Your task to perform on an android device: toggle sleep mode Image 0: 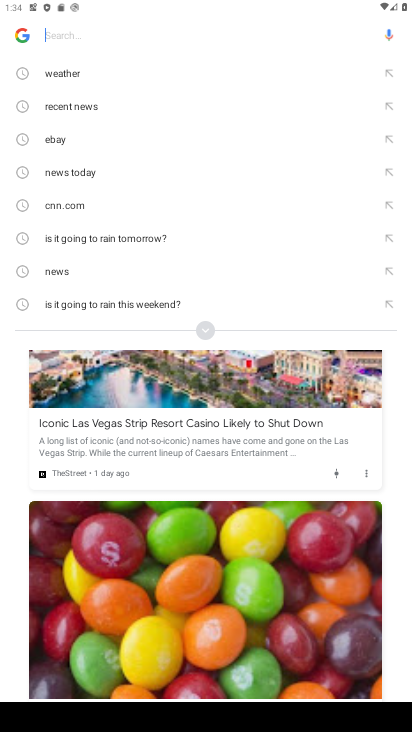
Step 0: press home button
Your task to perform on an android device: toggle sleep mode Image 1: 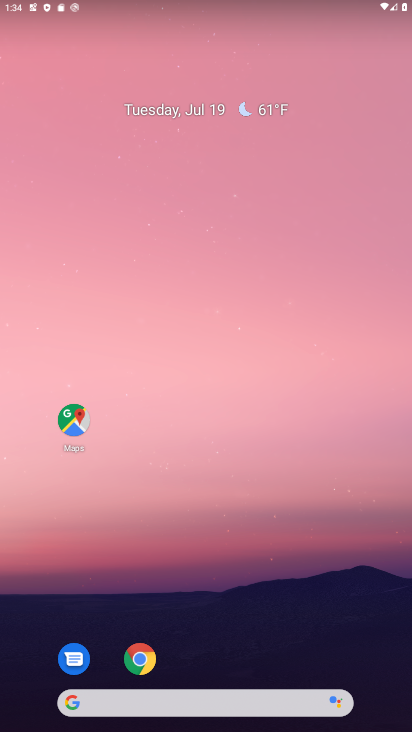
Step 1: drag from (300, 646) to (208, 6)
Your task to perform on an android device: toggle sleep mode Image 2: 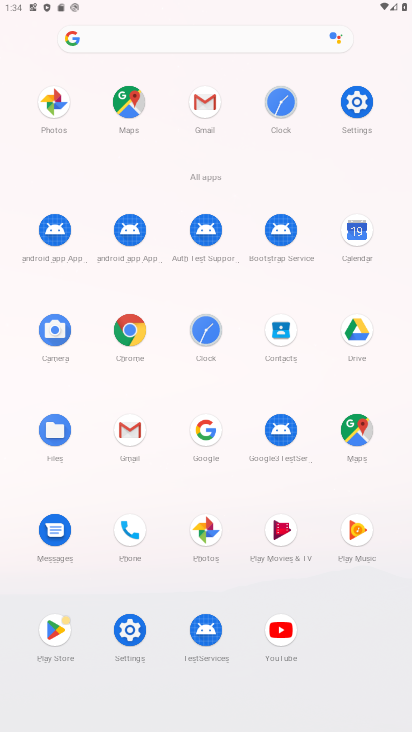
Step 2: click (133, 639)
Your task to perform on an android device: toggle sleep mode Image 3: 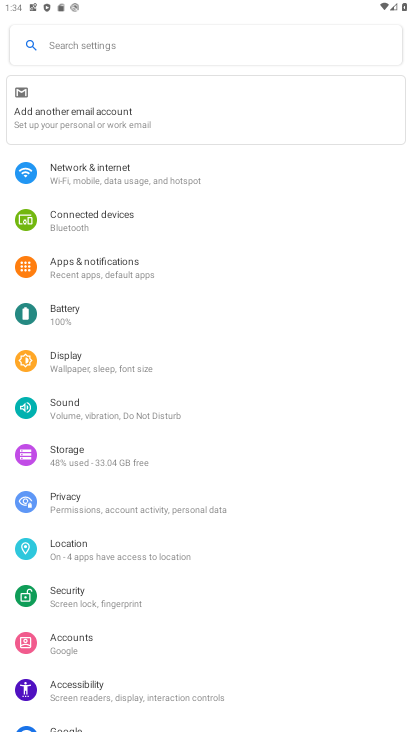
Step 3: click (117, 356)
Your task to perform on an android device: toggle sleep mode Image 4: 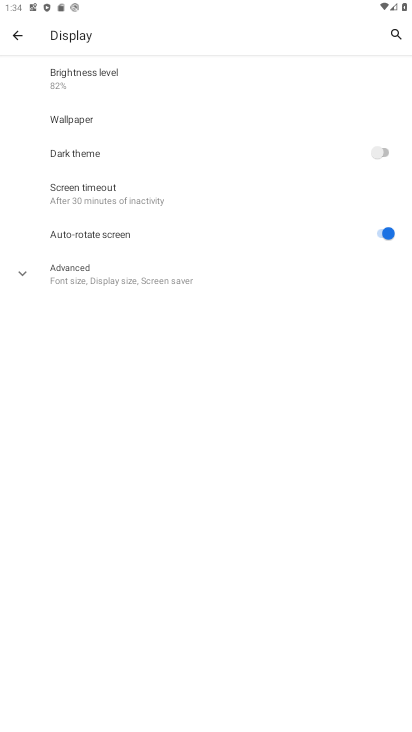
Step 4: task complete